Your task to perform on an android device: Open settings on Google Maps Image 0: 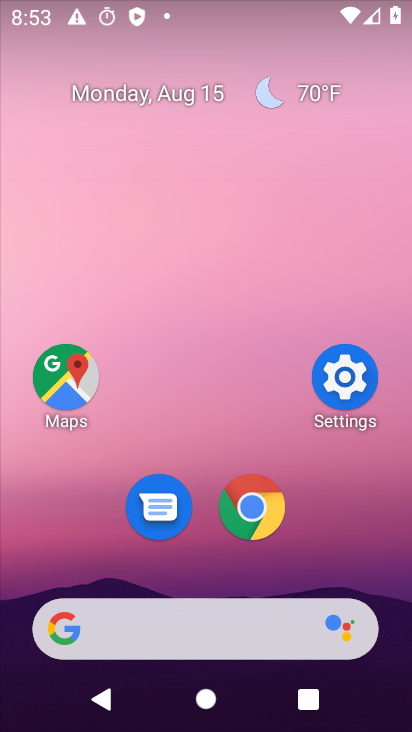
Step 0: click (65, 369)
Your task to perform on an android device: Open settings on Google Maps Image 1: 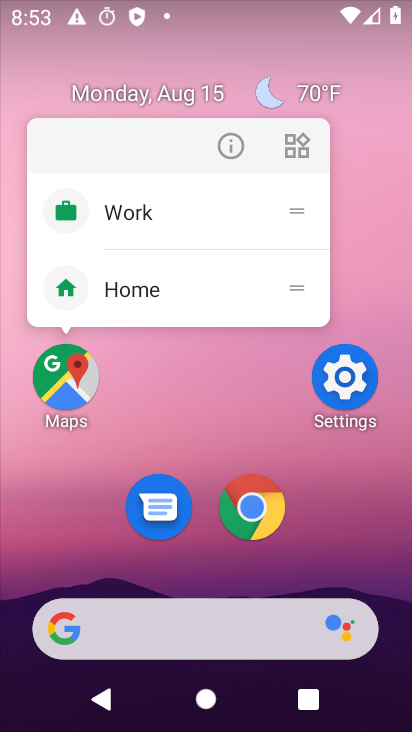
Step 1: click (70, 381)
Your task to perform on an android device: Open settings on Google Maps Image 2: 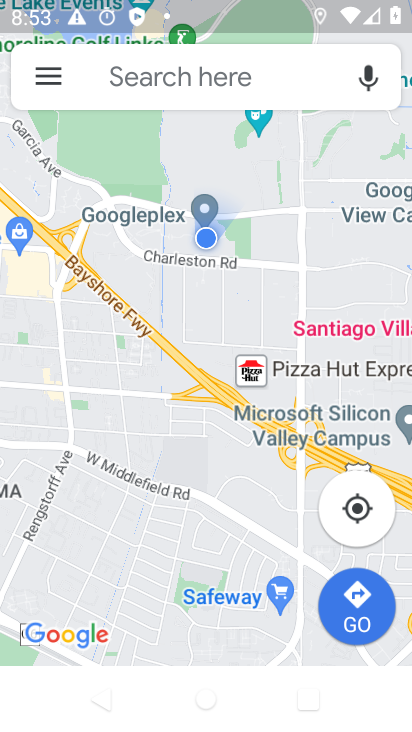
Step 2: click (48, 78)
Your task to perform on an android device: Open settings on Google Maps Image 3: 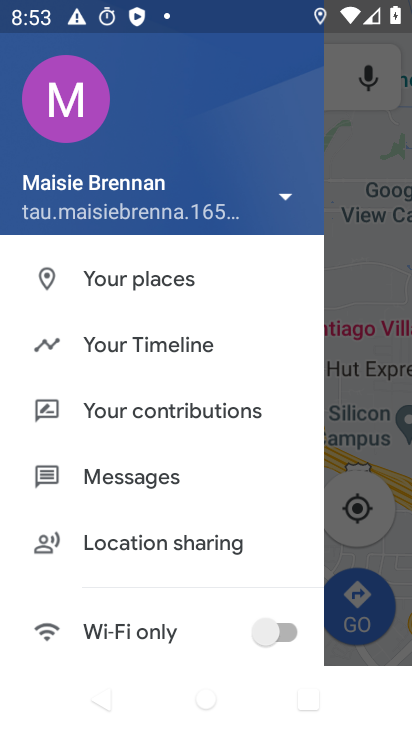
Step 3: drag from (129, 619) to (284, 131)
Your task to perform on an android device: Open settings on Google Maps Image 4: 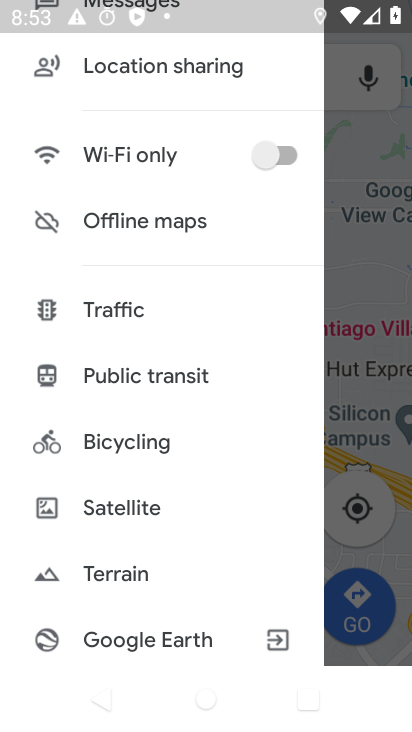
Step 4: drag from (209, 530) to (291, 135)
Your task to perform on an android device: Open settings on Google Maps Image 5: 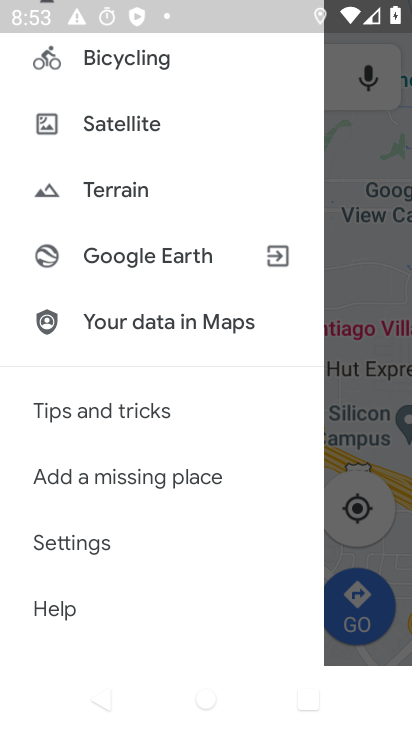
Step 5: click (94, 538)
Your task to perform on an android device: Open settings on Google Maps Image 6: 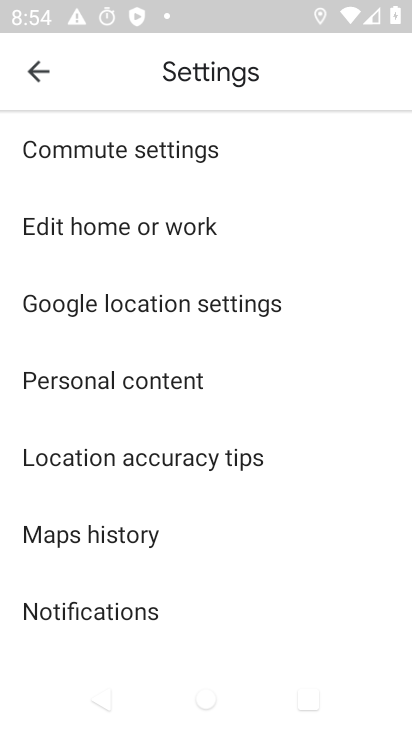
Step 6: task complete